Your task to perform on an android device: Show me popular videos on Youtube Image 0: 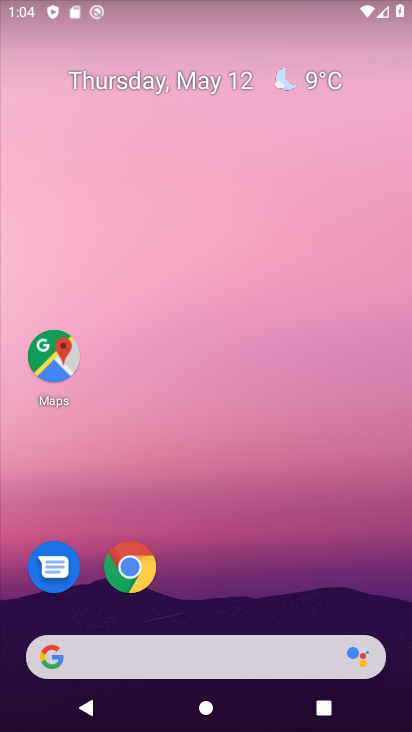
Step 0: press home button
Your task to perform on an android device: Show me popular videos on Youtube Image 1: 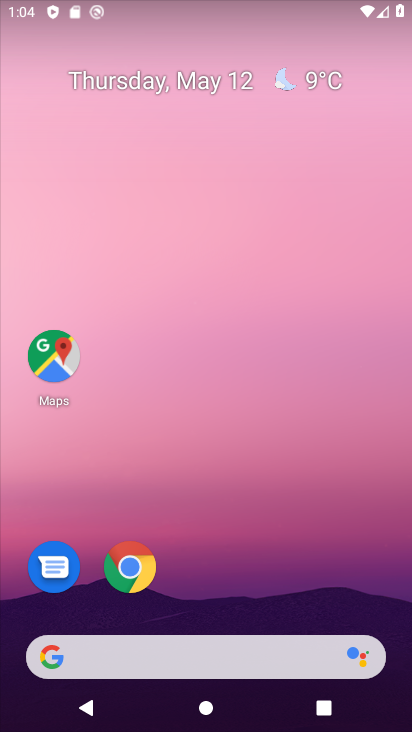
Step 1: drag from (211, 614) to (202, 22)
Your task to perform on an android device: Show me popular videos on Youtube Image 2: 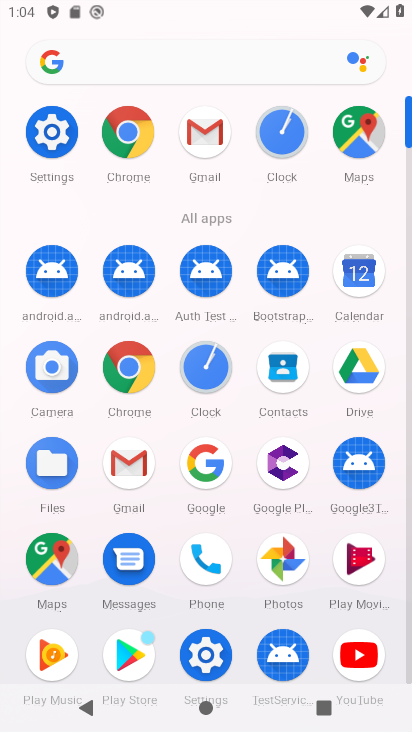
Step 2: click (357, 651)
Your task to perform on an android device: Show me popular videos on Youtube Image 3: 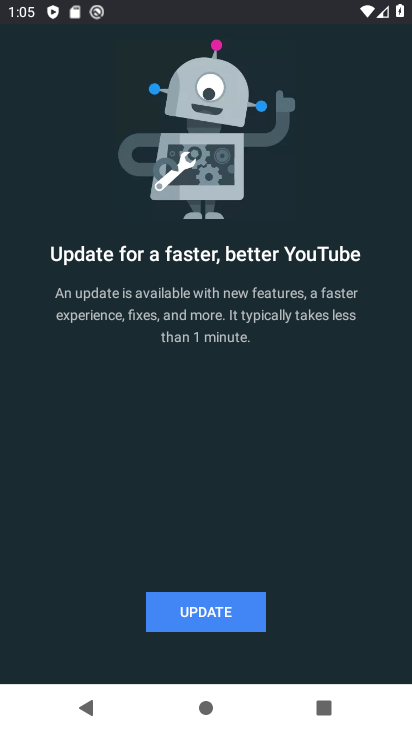
Step 3: click (204, 606)
Your task to perform on an android device: Show me popular videos on Youtube Image 4: 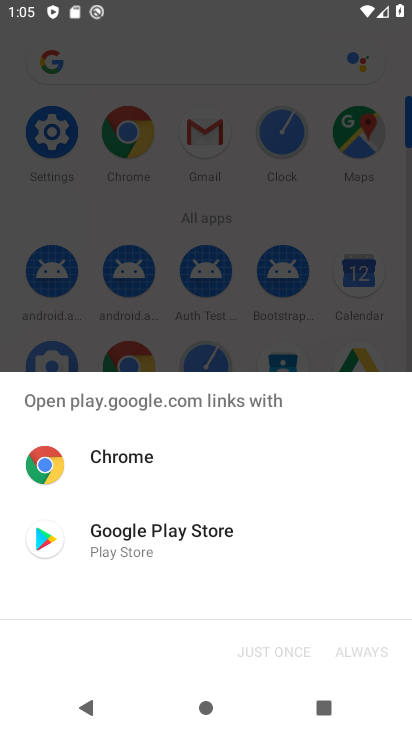
Step 4: click (133, 525)
Your task to perform on an android device: Show me popular videos on Youtube Image 5: 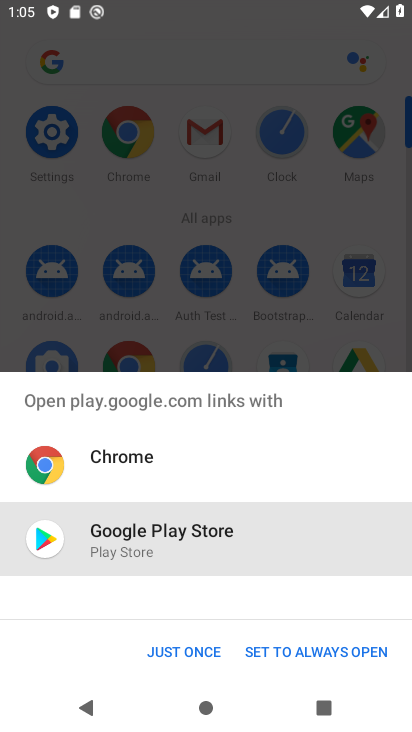
Step 5: click (179, 643)
Your task to perform on an android device: Show me popular videos on Youtube Image 6: 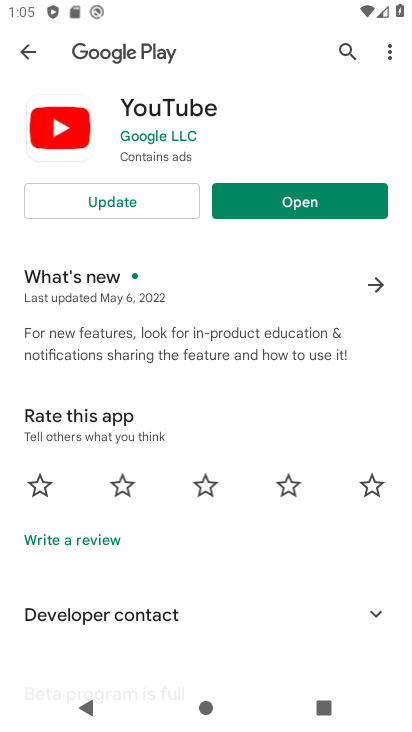
Step 6: click (114, 199)
Your task to perform on an android device: Show me popular videos on Youtube Image 7: 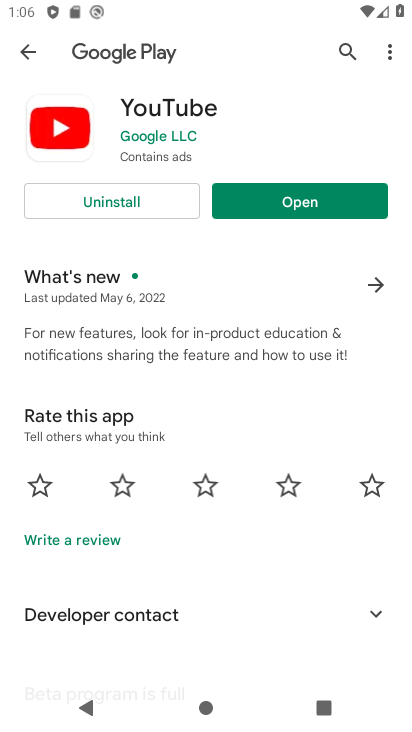
Step 7: click (306, 199)
Your task to perform on an android device: Show me popular videos on Youtube Image 8: 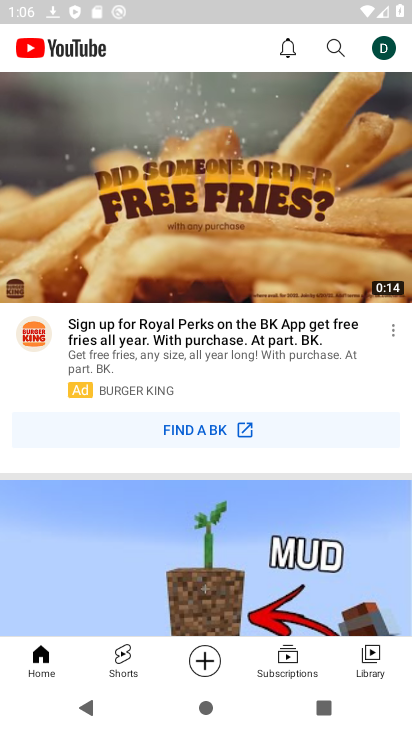
Step 8: drag from (196, 562) to (210, 177)
Your task to perform on an android device: Show me popular videos on Youtube Image 9: 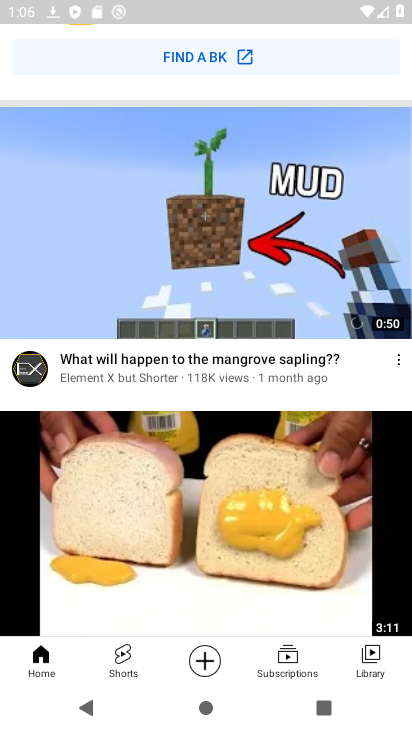
Step 9: drag from (137, 212) to (143, 611)
Your task to perform on an android device: Show me popular videos on Youtube Image 10: 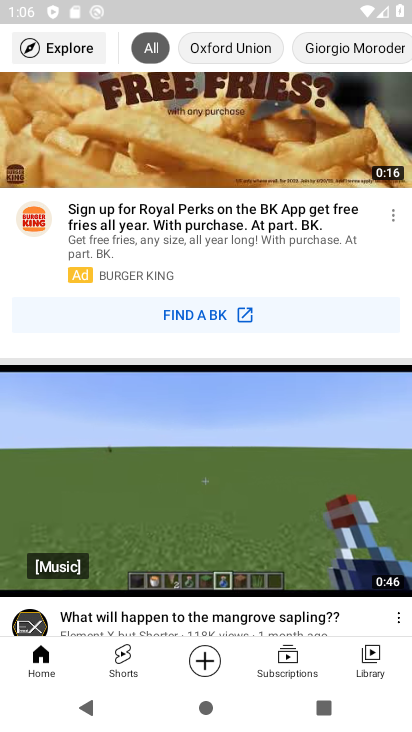
Step 10: click (41, 48)
Your task to perform on an android device: Show me popular videos on Youtube Image 11: 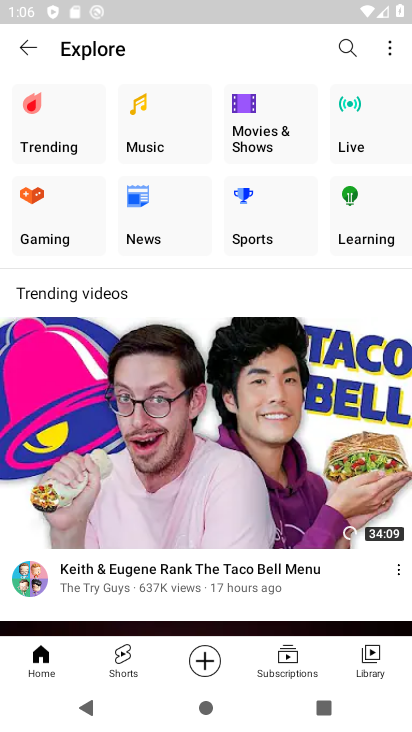
Step 11: drag from (209, 522) to (223, 28)
Your task to perform on an android device: Show me popular videos on Youtube Image 12: 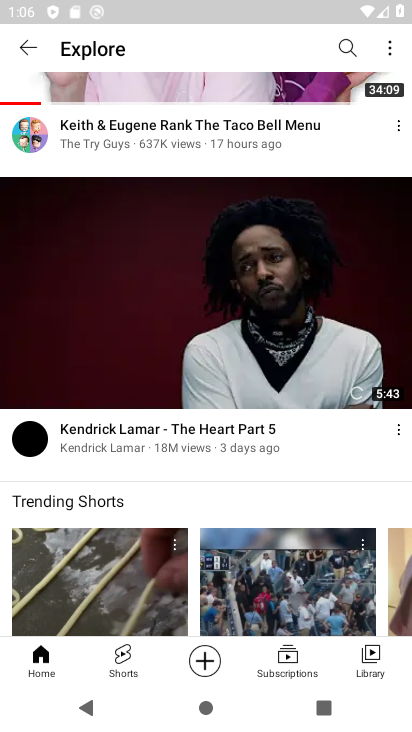
Step 12: click (203, 34)
Your task to perform on an android device: Show me popular videos on Youtube Image 13: 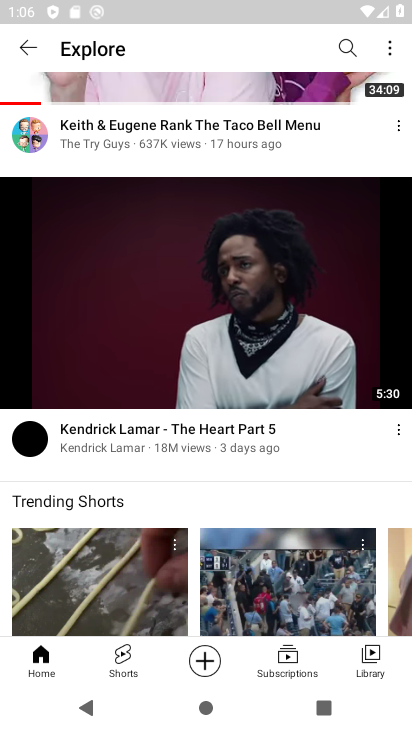
Step 13: task complete